Your task to perform on an android device: toggle sleep mode Image 0: 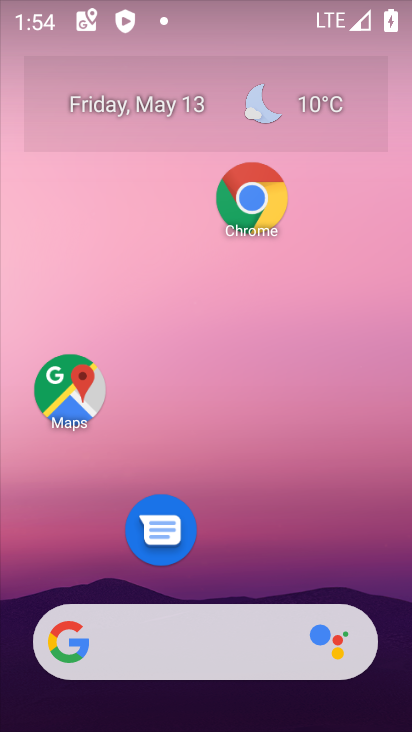
Step 0: drag from (217, 584) to (401, 562)
Your task to perform on an android device: toggle sleep mode Image 1: 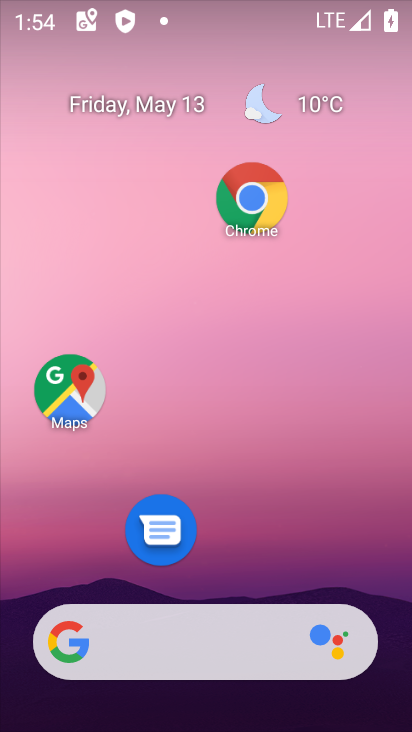
Step 1: drag from (196, 592) to (198, 23)
Your task to perform on an android device: toggle sleep mode Image 2: 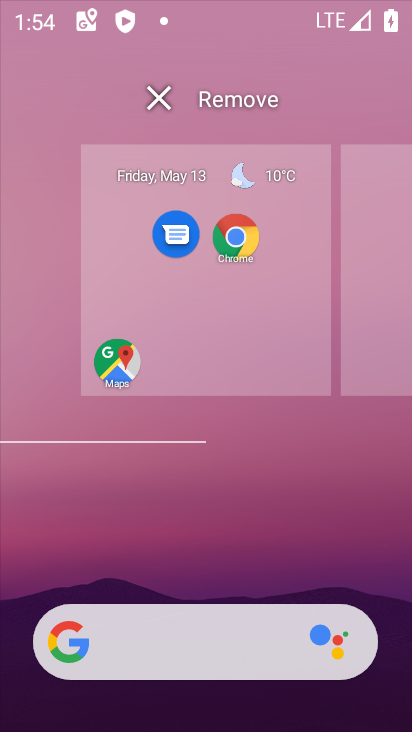
Step 2: drag from (214, 562) to (201, 1)
Your task to perform on an android device: toggle sleep mode Image 3: 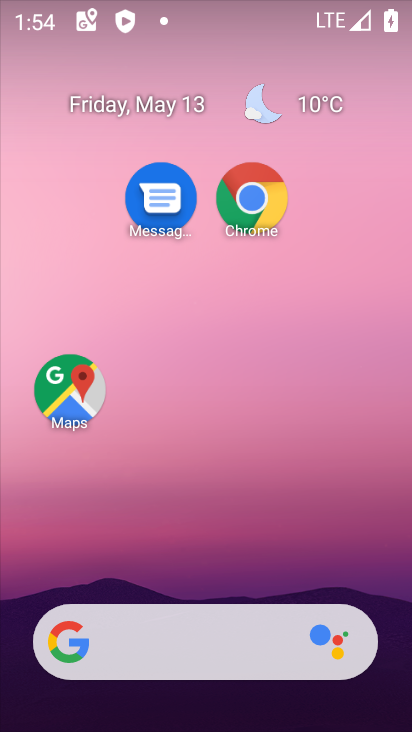
Step 3: drag from (183, 634) to (274, 29)
Your task to perform on an android device: toggle sleep mode Image 4: 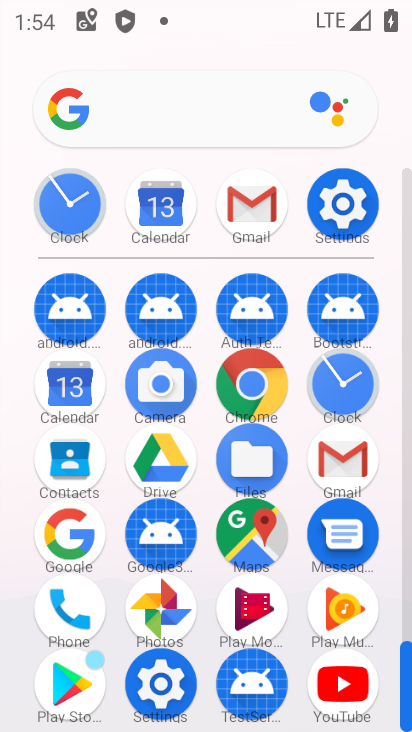
Step 4: click (340, 204)
Your task to perform on an android device: toggle sleep mode Image 5: 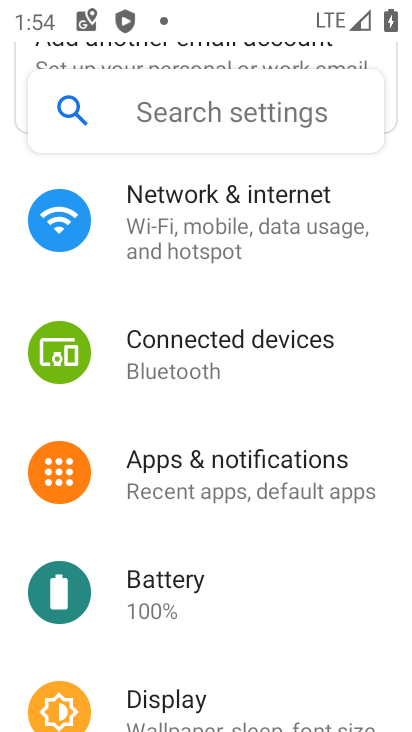
Step 5: drag from (175, 541) to (151, 147)
Your task to perform on an android device: toggle sleep mode Image 6: 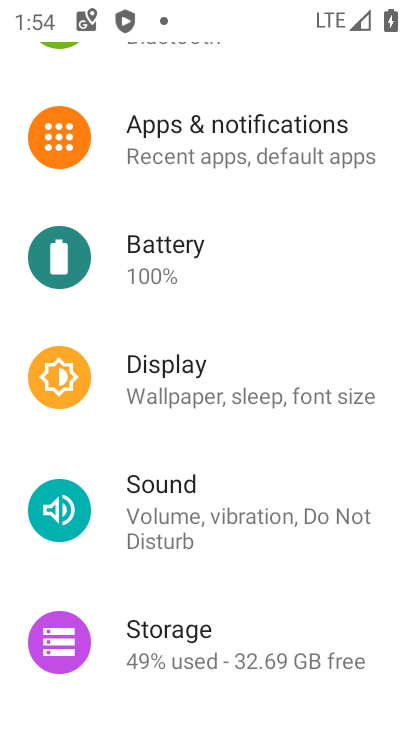
Step 6: click (198, 388)
Your task to perform on an android device: toggle sleep mode Image 7: 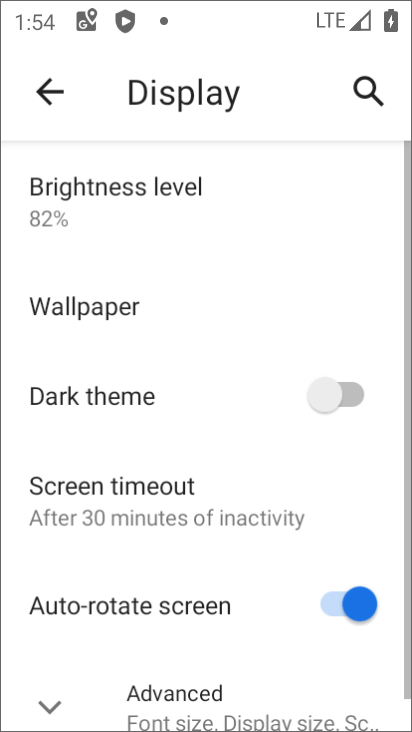
Step 7: task complete